Your task to perform on an android device: See recent photos Image 0: 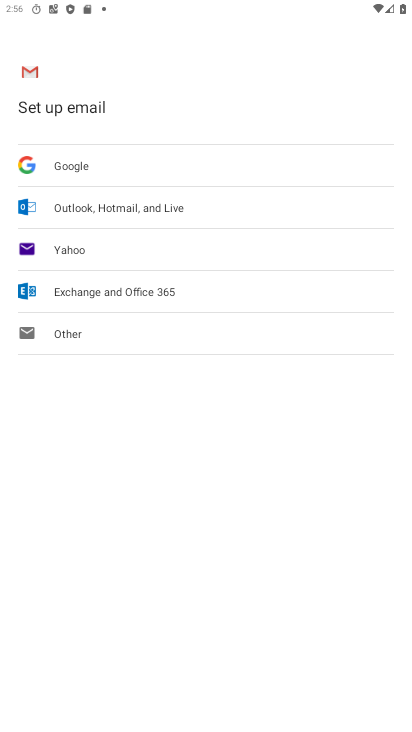
Step 0: press home button
Your task to perform on an android device: See recent photos Image 1: 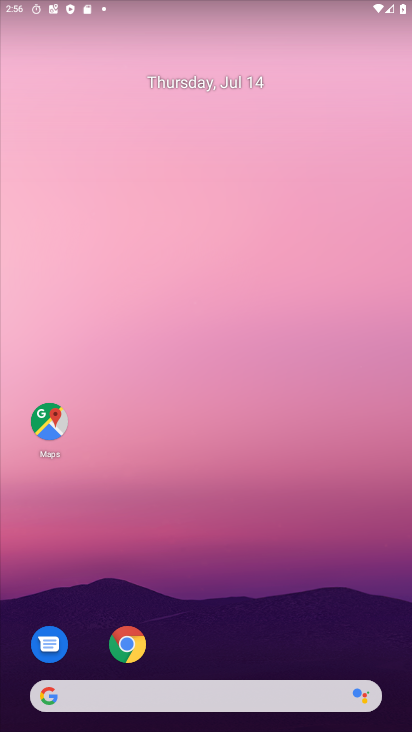
Step 1: drag from (24, 709) to (234, 145)
Your task to perform on an android device: See recent photos Image 2: 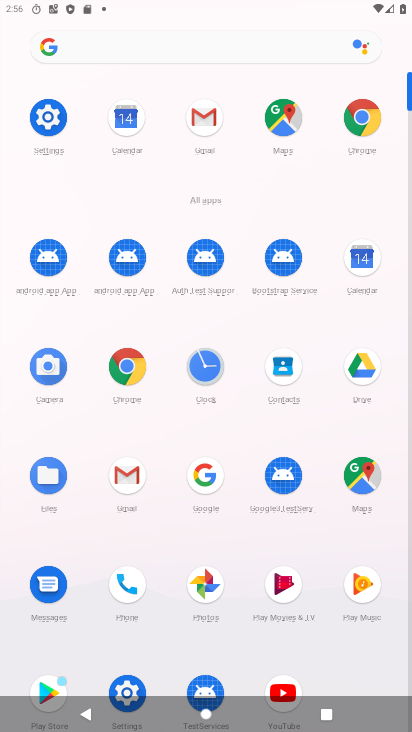
Step 2: click (215, 582)
Your task to perform on an android device: See recent photos Image 3: 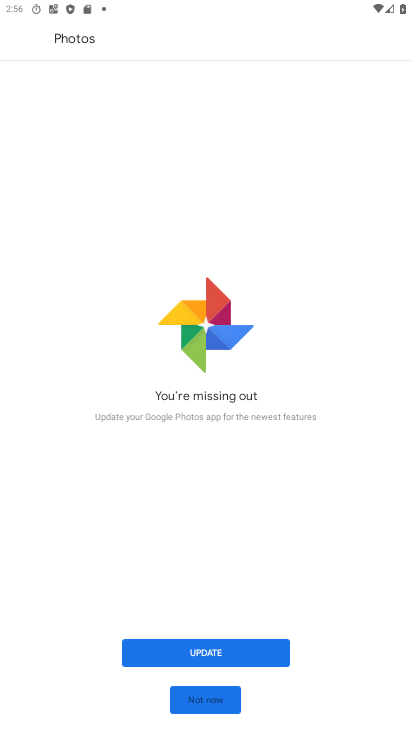
Step 3: click (189, 701)
Your task to perform on an android device: See recent photos Image 4: 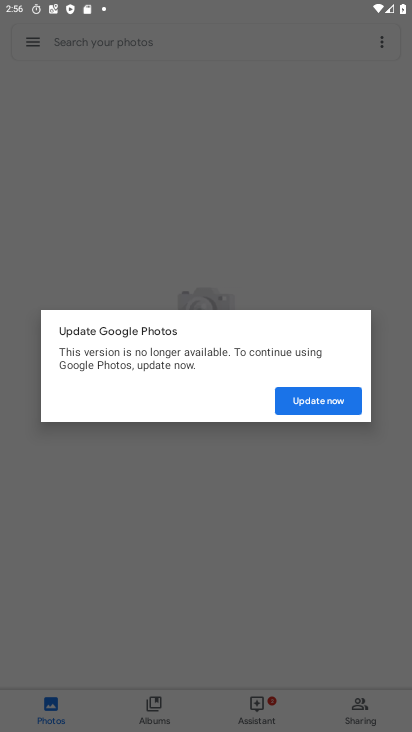
Step 4: click (297, 402)
Your task to perform on an android device: See recent photos Image 5: 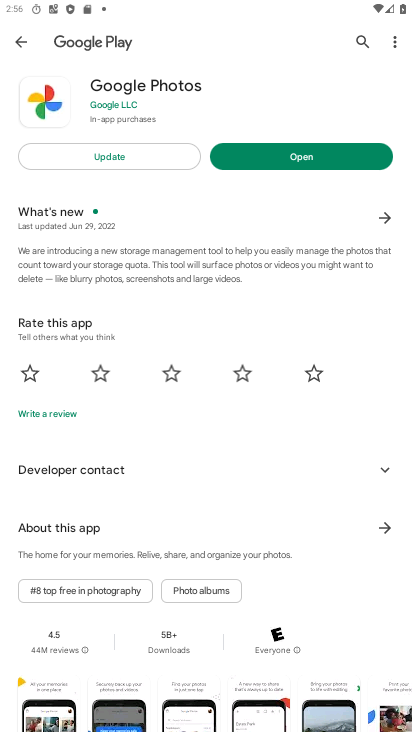
Step 5: click (292, 160)
Your task to perform on an android device: See recent photos Image 6: 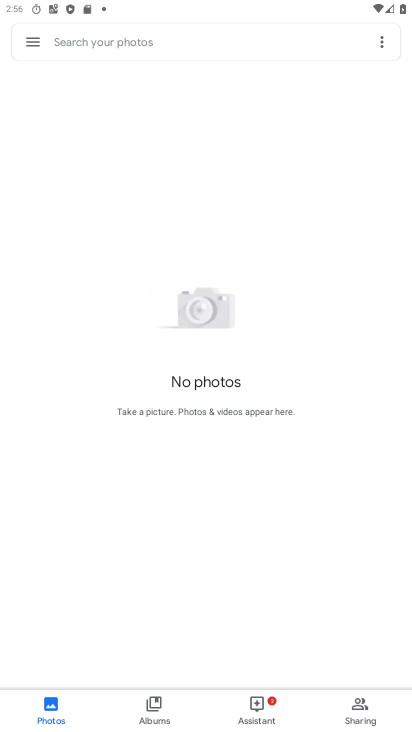
Step 6: task complete